Your task to perform on an android device: Open battery settings Image 0: 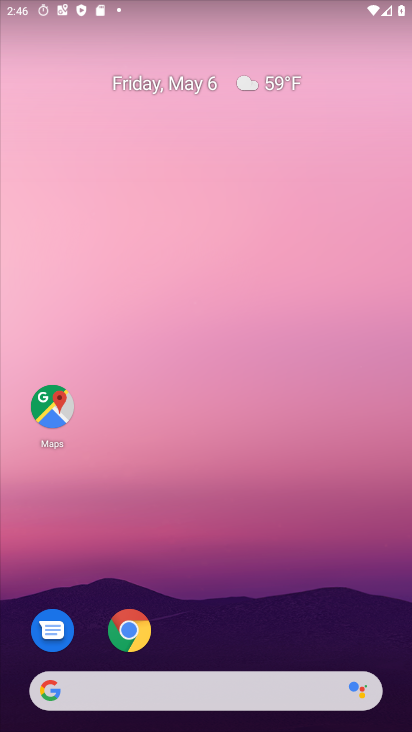
Step 0: drag from (217, 644) to (230, 186)
Your task to perform on an android device: Open battery settings Image 1: 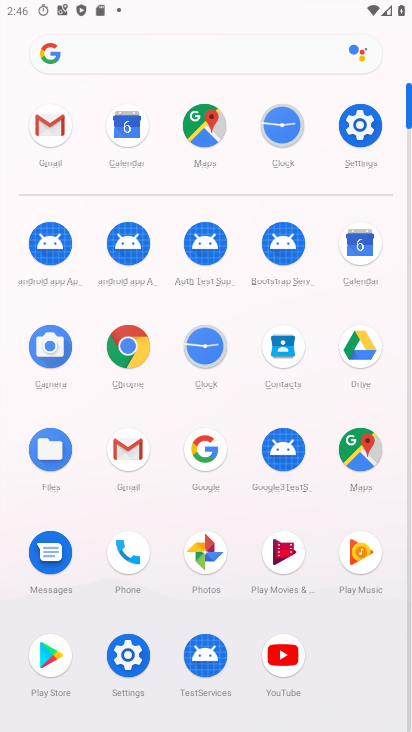
Step 1: click (349, 142)
Your task to perform on an android device: Open battery settings Image 2: 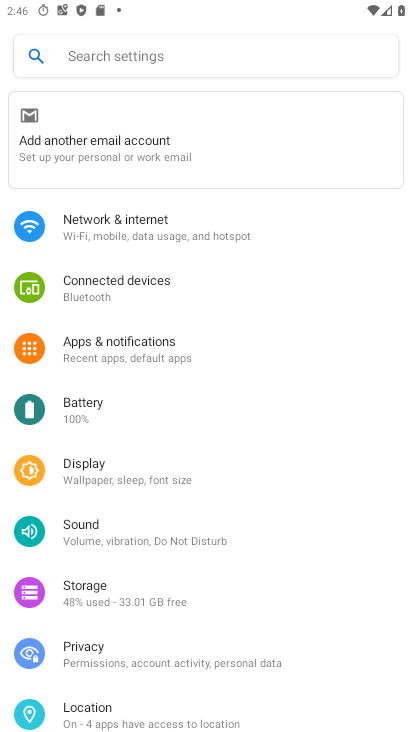
Step 2: click (118, 409)
Your task to perform on an android device: Open battery settings Image 3: 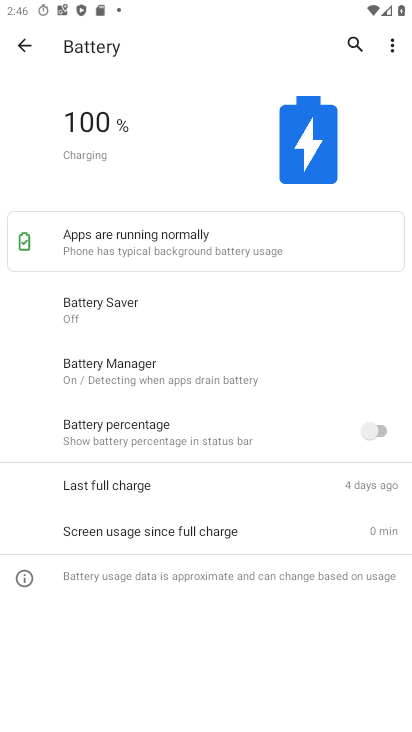
Step 3: task complete